Your task to perform on an android device: Go to wifi settings Image 0: 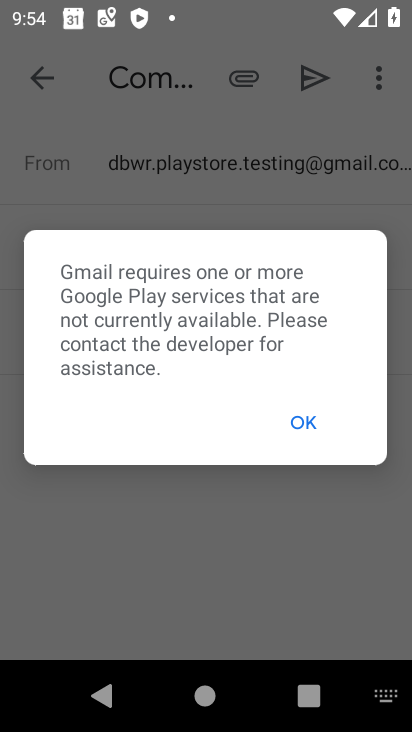
Step 0: press home button
Your task to perform on an android device: Go to wifi settings Image 1: 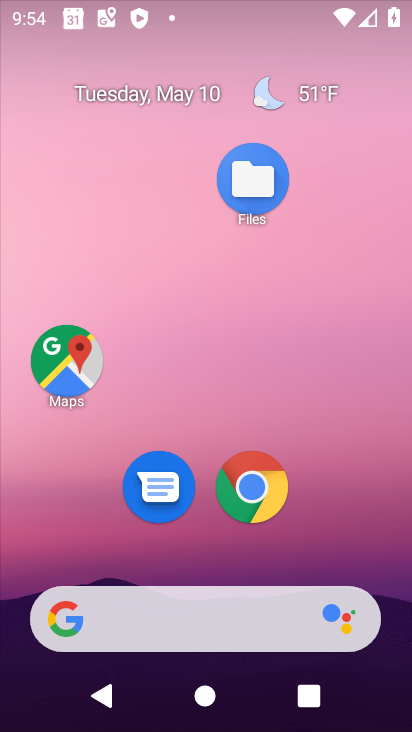
Step 1: drag from (211, 548) to (226, 114)
Your task to perform on an android device: Go to wifi settings Image 2: 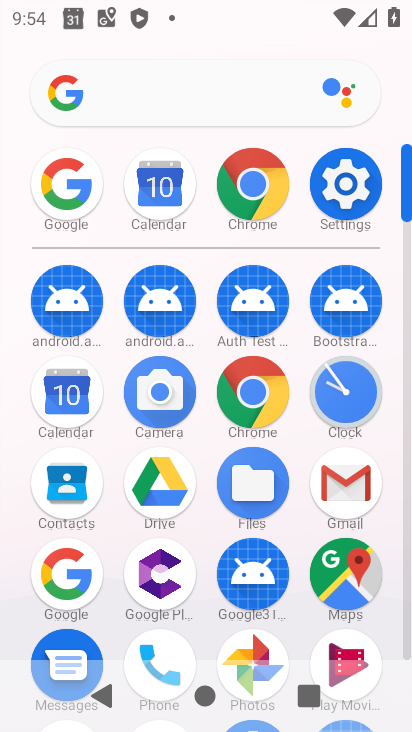
Step 2: click (339, 180)
Your task to perform on an android device: Go to wifi settings Image 3: 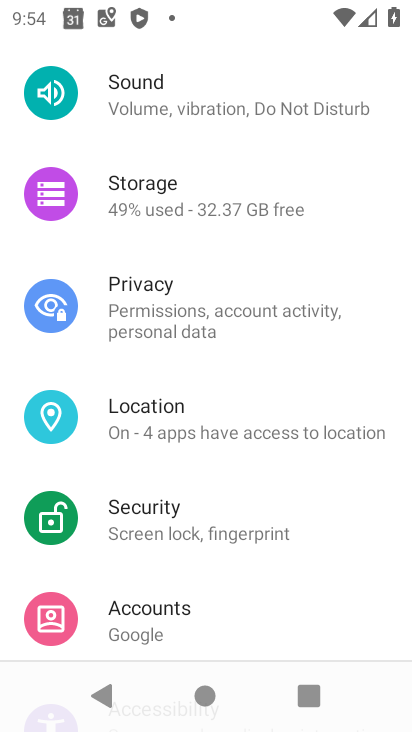
Step 3: drag from (215, 178) to (245, 658)
Your task to perform on an android device: Go to wifi settings Image 4: 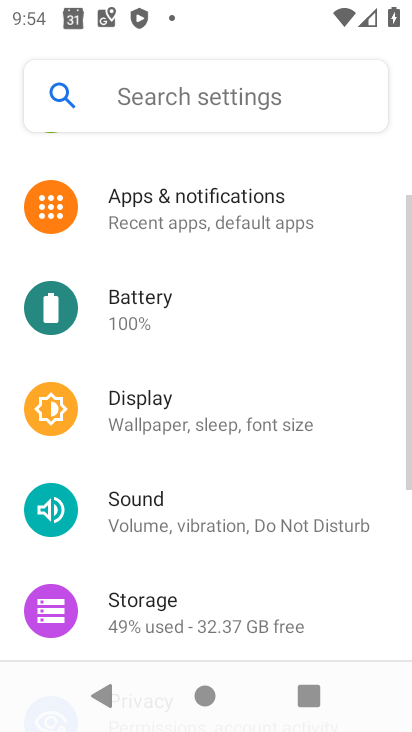
Step 4: drag from (207, 202) to (199, 625)
Your task to perform on an android device: Go to wifi settings Image 5: 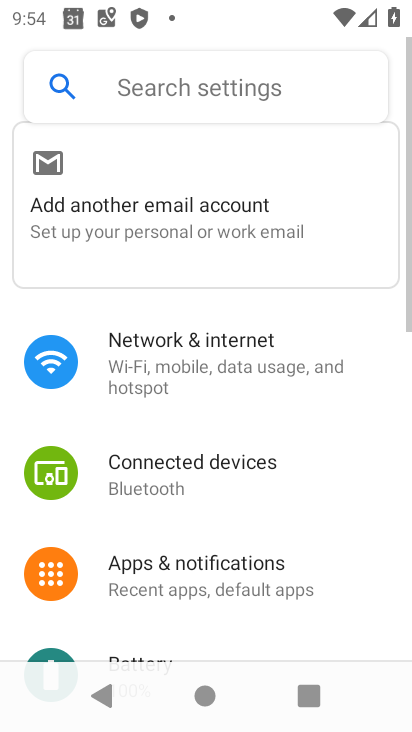
Step 5: click (229, 314)
Your task to perform on an android device: Go to wifi settings Image 6: 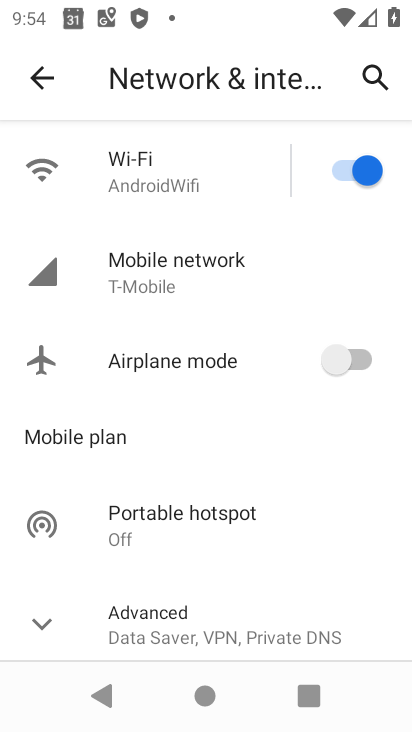
Step 6: click (144, 171)
Your task to perform on an android device: Go to wifi settings Image 7: 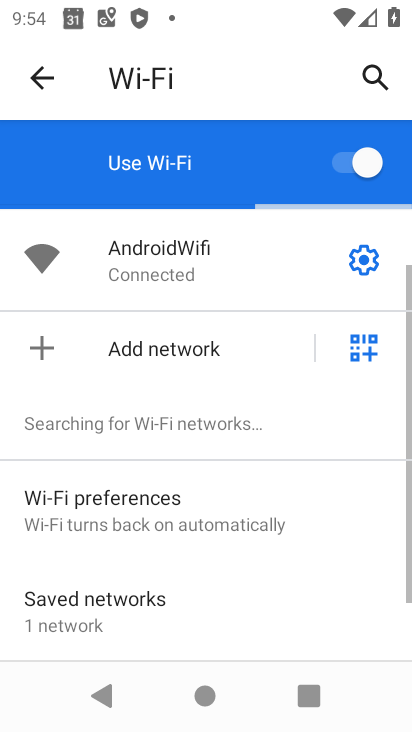
Step 7: click (360, 261)
Your task to perform on an android device: Go to wifi settings Image 8: 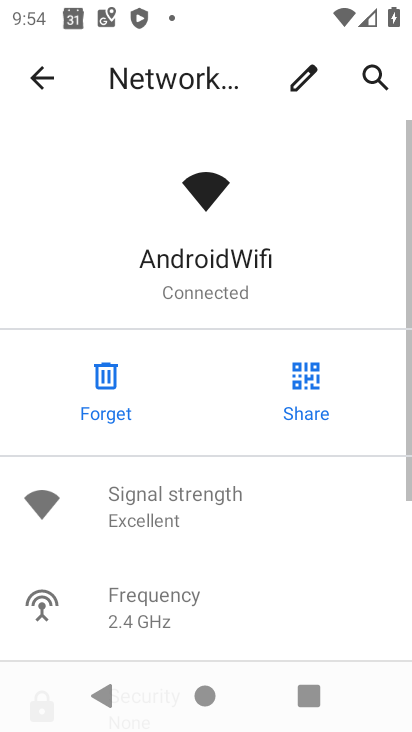
Step 8: task complete